Your task to perform on an android device: turn on location history Image 0: 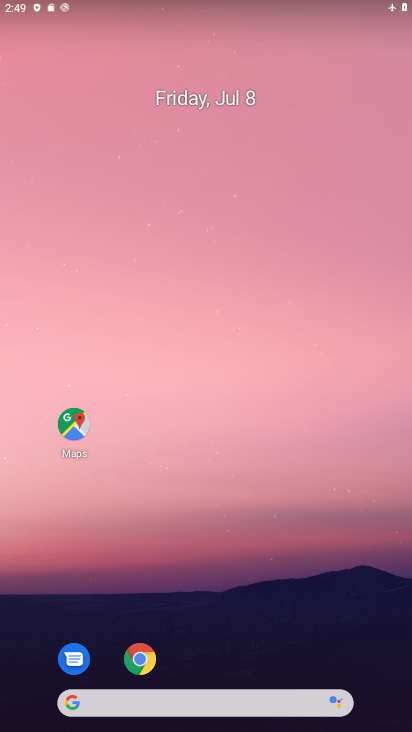
Step 0: drag from (250, 607) to (287, 131)
Your task to perform on an android device: turn on location history Image 1: 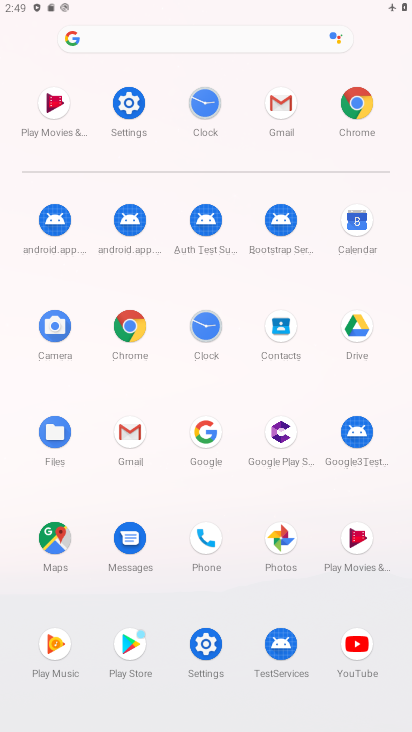
Step 1: click (207, 653)
Your task to perform on an android device: turn on location history Image 2: 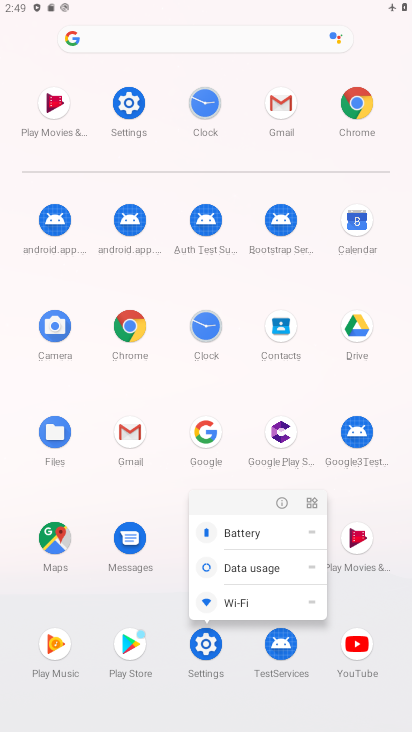
Step 2: click (195, 655)
Your task to perform on an android device: turn on location history Image 3: 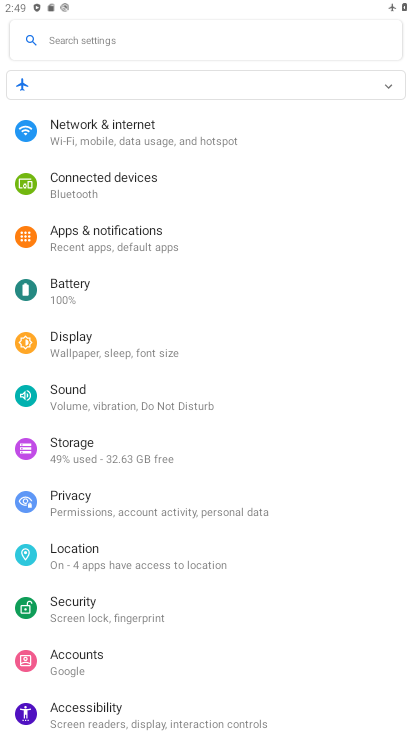
Step 3: click (123, 558)
Your task to perform on an android device: turn on location history Image 4: 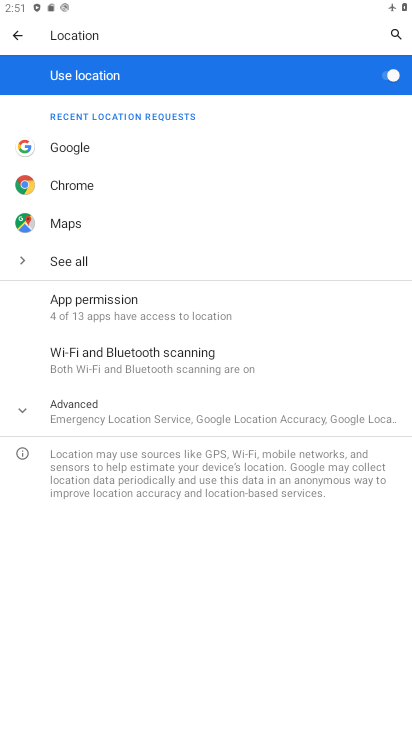
Step 4: click (153, 431)
Your task to perform on an android device: turn on location history Image 5: 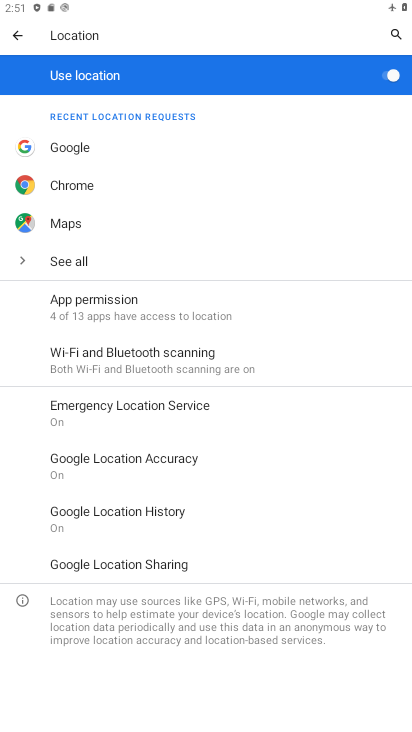
Step 5: click (184, 516)
Your task to perform on an android device: turn on location history Image 6: 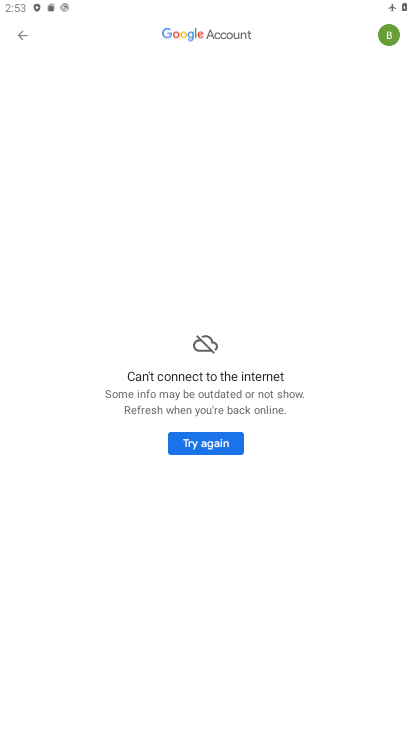
Step 6: task complete